Your task to perform on an android device: Go to Google Image 0: 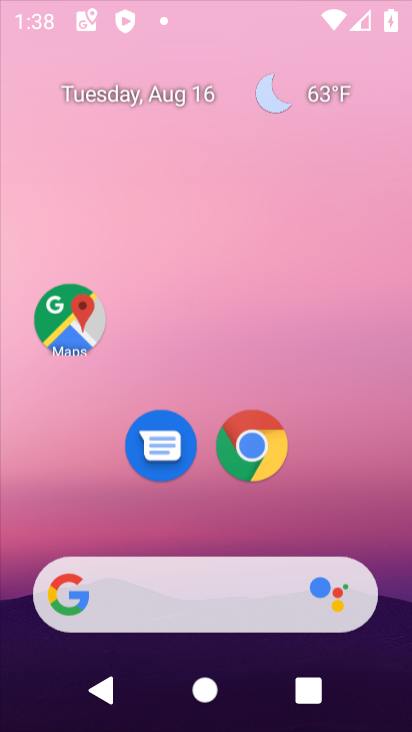
Step 0: press home button
Your task to perform on an android device: Go to Google Image 1: 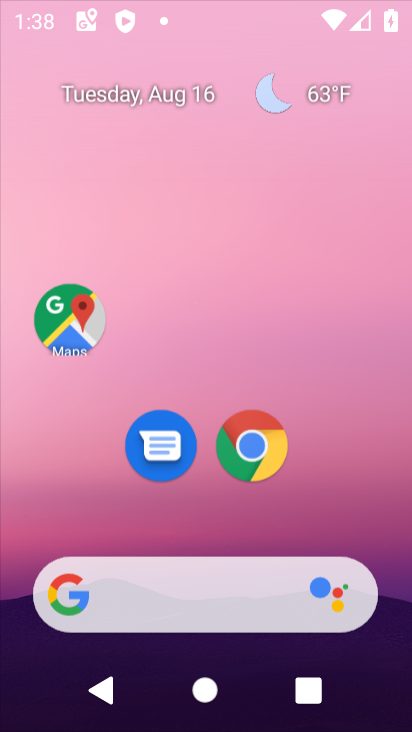
Step 1: click (224, 0)
Your task to perform on an android device: Go to Google Image 2: 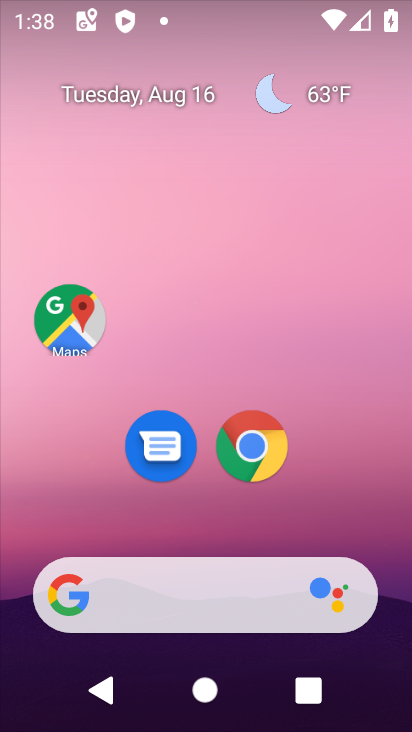
Step 2: drag from (216, 530) to (206, 8)
Your task to perform on an android device: Go to Google Image 3: 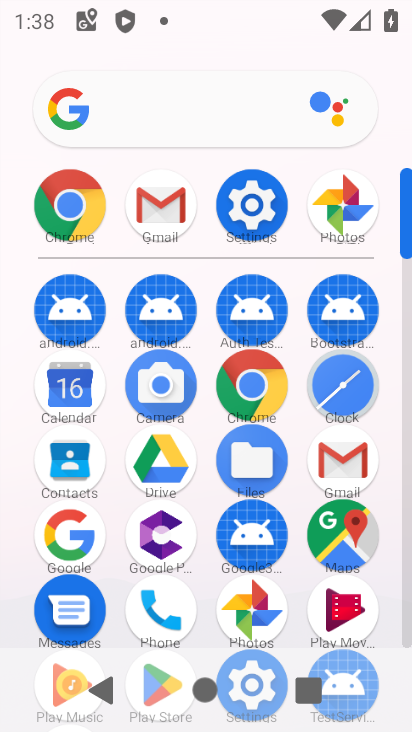
Step 3: click (67, 526)
Your task to perform on an android device: Go to Google Image 4: 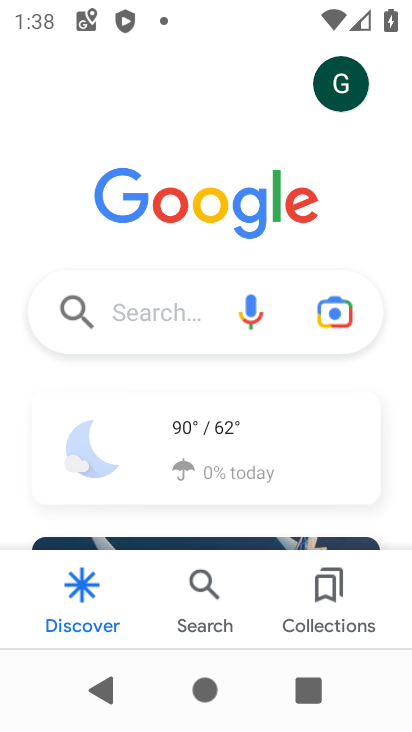
Step 4: drag from (212, 519) to (198, 103)
Your task to perform on an android device: Go to Google Image 5: 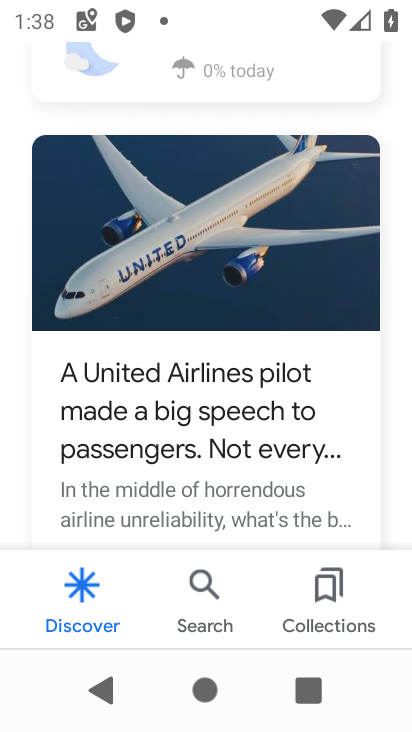
Step 5: drag from (208, 464) to (193, 131)
Your task to perform on an android device: Go to Google Image 6: 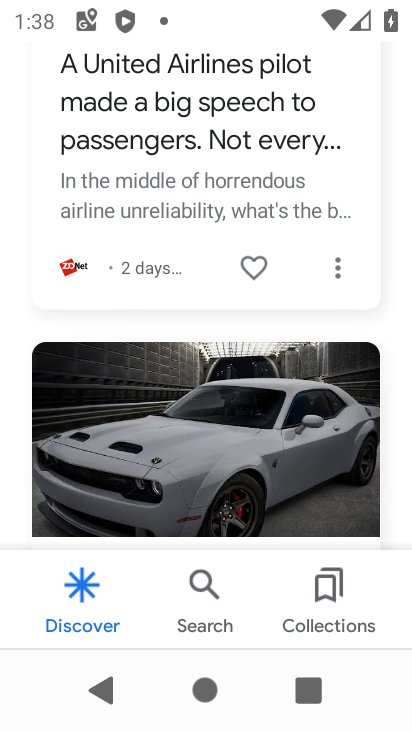
Step 6: drag from (202, 326) to (205, 55)
Your task to perform on an android device: Go to Google Image 7: 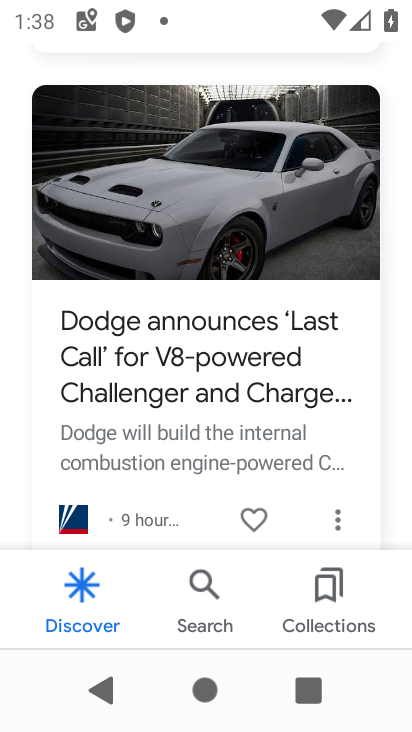
Step 7: drag from (215, 529) to (195, 66)
Your task to perform on an android device: Go to Google Image 8: 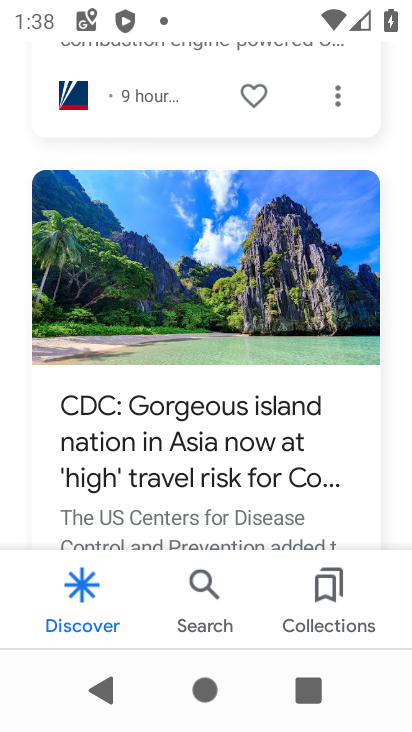
Step 8: click (321, 580)
Your task to perform on an android device: Go to Google Image 9: 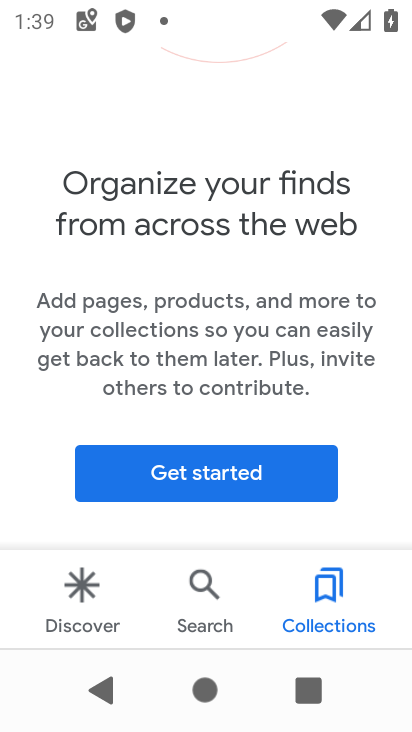
Step 9: click (206, 596)
Your task to perform on an android device: Go to Google Image 10: 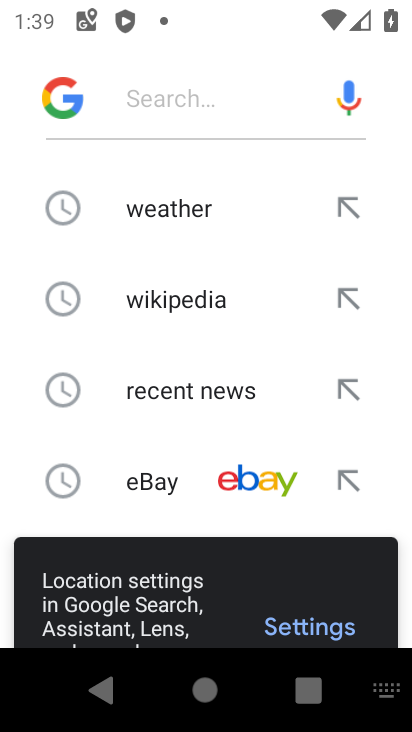
Step 10: task complete